Your task to perform on an android device: Go to Google maps Image 0: 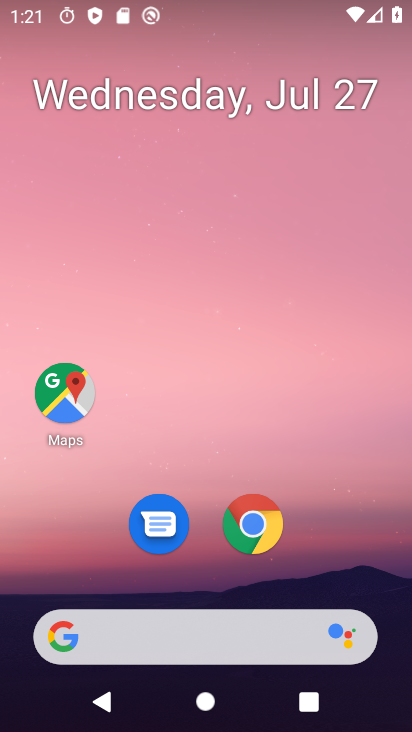
Step 0: click (60, 379)
Your task to perform on an android device: Go to Google maps Image 1: 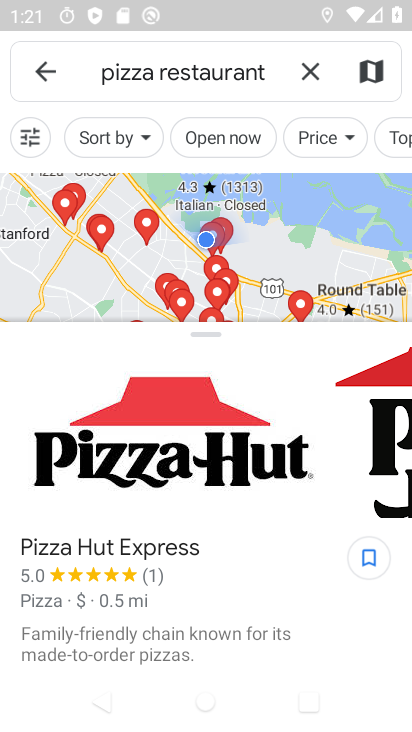
Step 1: click (308, 67)
Your task to perform on an android device: Go to Google maps Image 2: 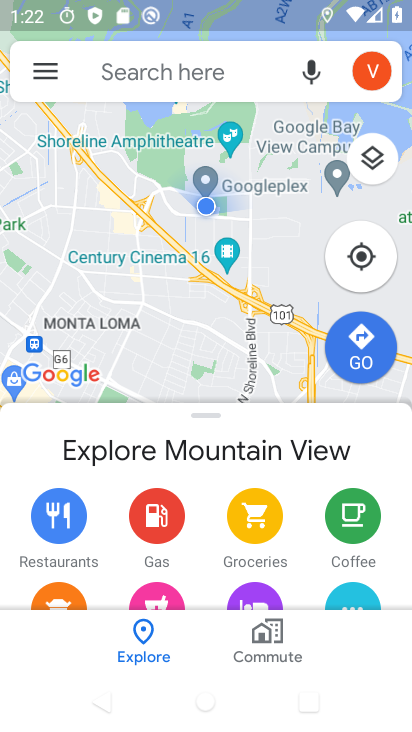
Step 2: task complete